Your task to perform on an android device: Go to internet settings Image 0: 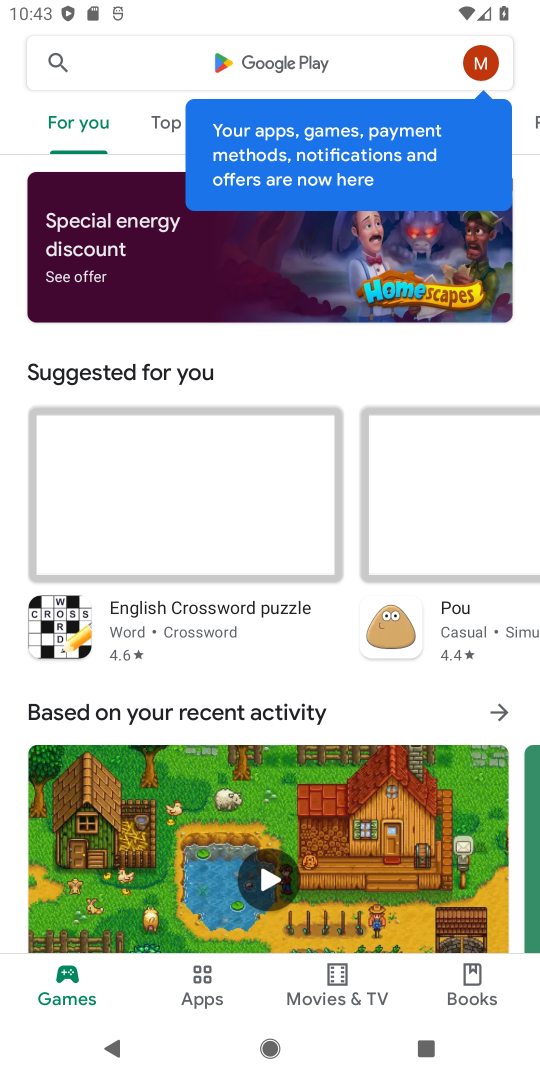
Step 0: press home button
Your task to perform on an android device: Go to internet settings Image 1: 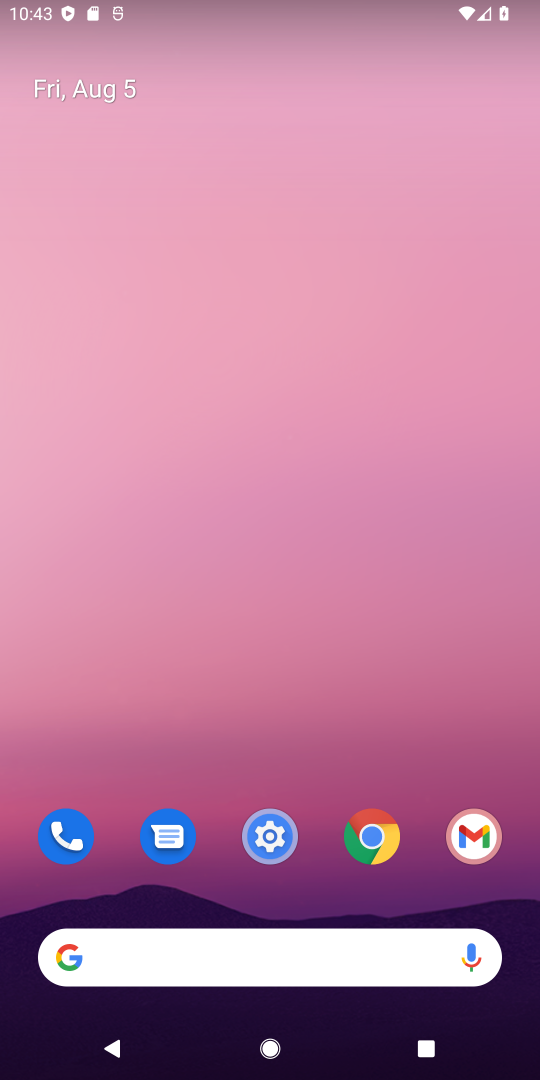
Step 1: drag from (313, 751) to (309, 174)
Your task to perform on an android device: Go to internet settings Image 2: 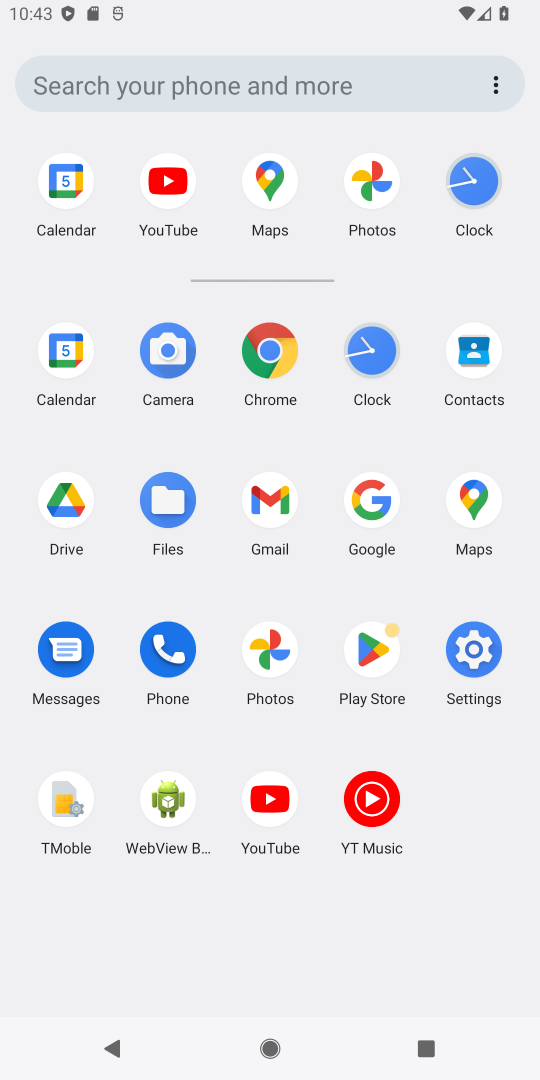
Step 2: click (472, 641)
Your task to perform on an android device: Go to internet settings Image 3: 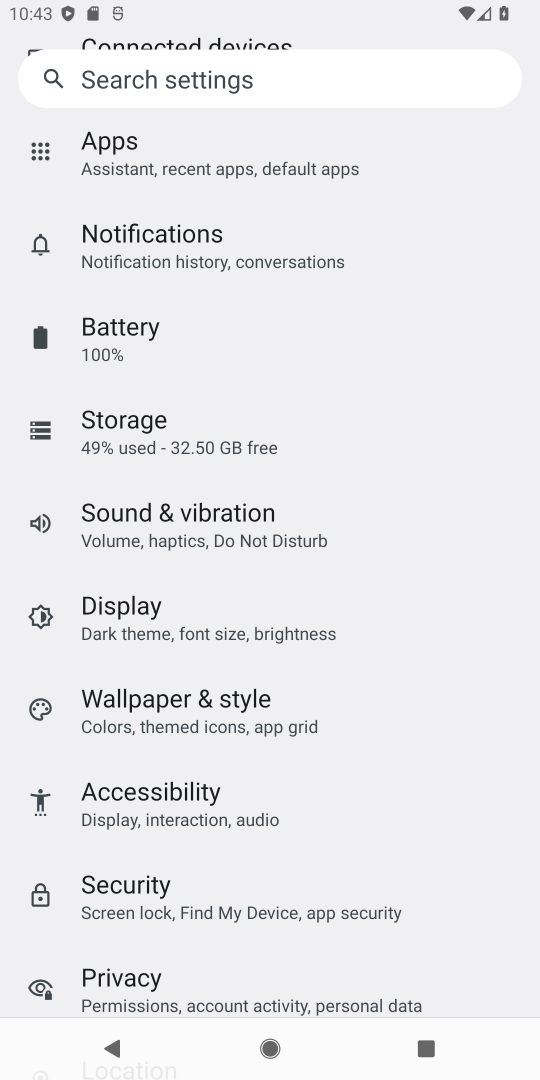
Step 3: drag from (392, 208) to (322, 601)
Your task to perform on an android device: Go to internet settings Image 4: 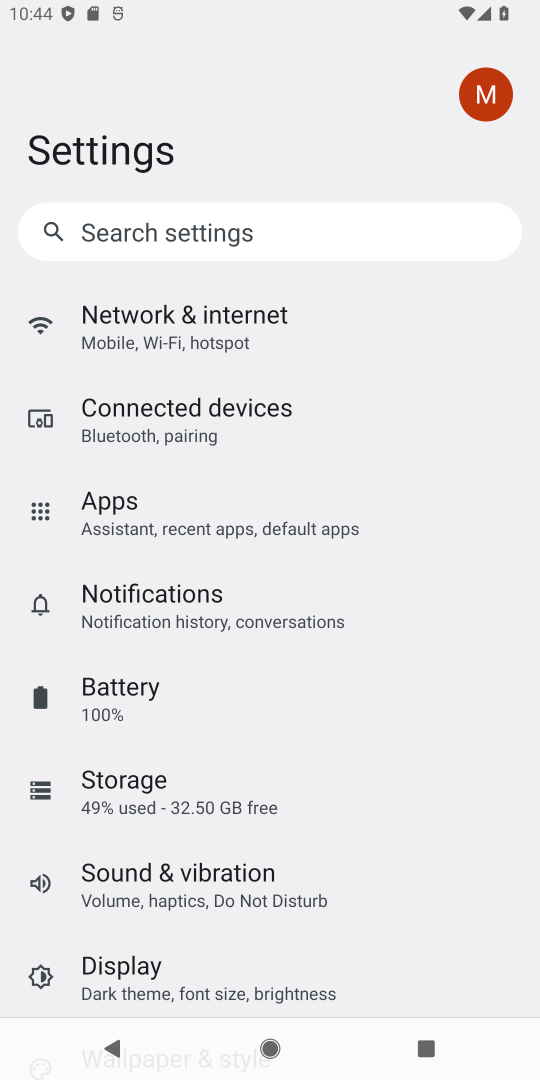
Step 4: click (153, 333)
Your task to perform on an android device: Go to internet settings Image 5: 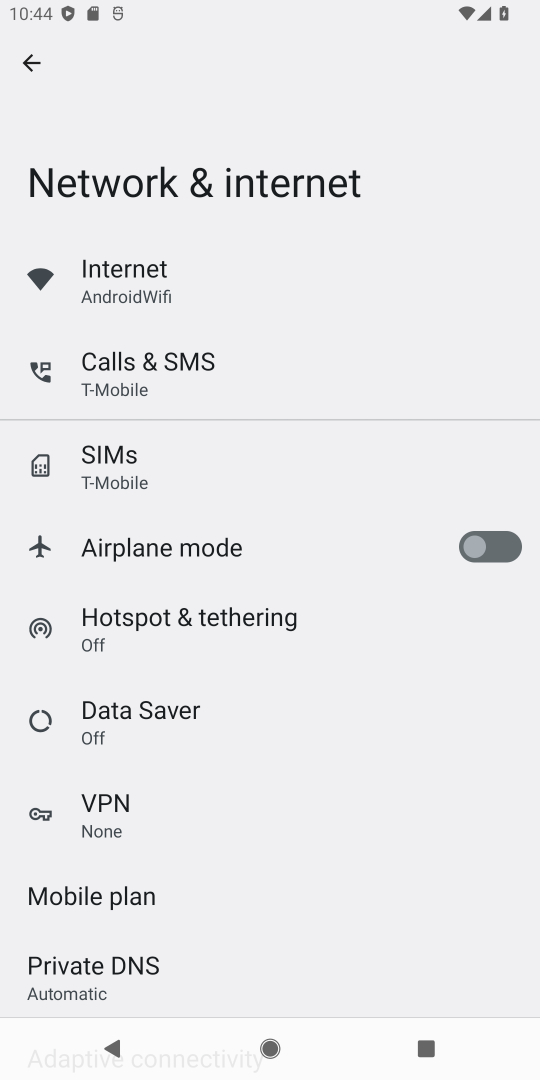
Step 5: click (146, 281)
Your task to perform on an android device: Go to internet settings Image 6: 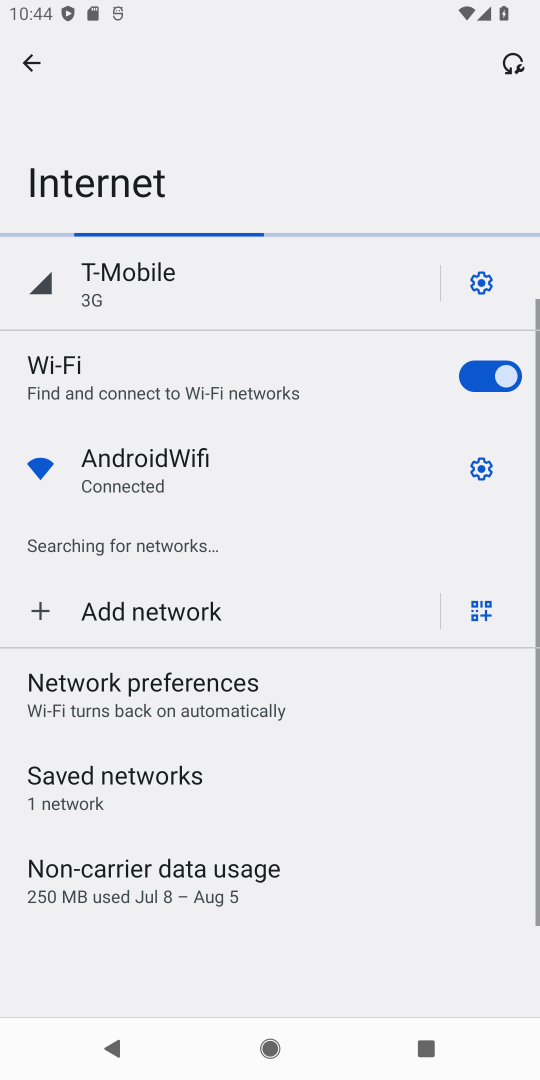
Step 6: task complete